Your task to perform on an android device: Search for vegetarian restaurants on Maps Image 0: 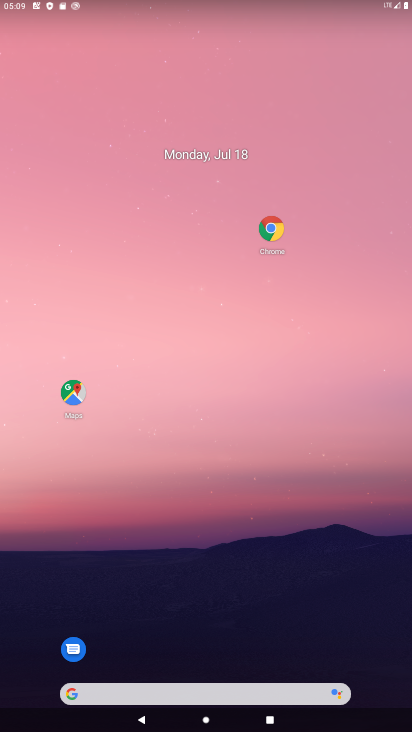
Step 0: click (67, 396)
Your task to perform on an android device: Search for vegetarian restaurants on Maps Image 1: 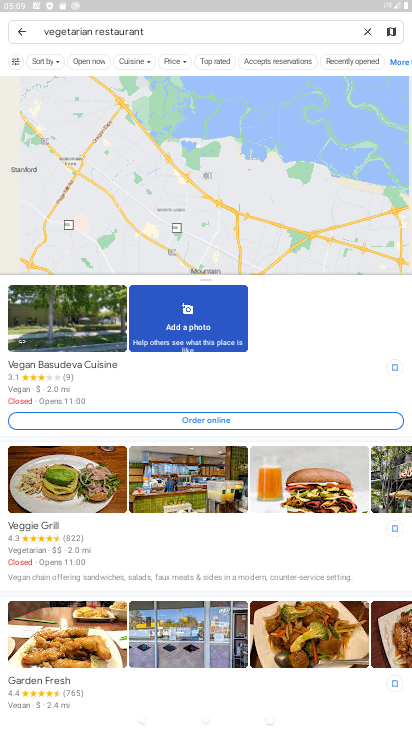
Step 1: task complete